Your task to perform on an android device: Open Youtube and go to the subscriptions tab Image 0: 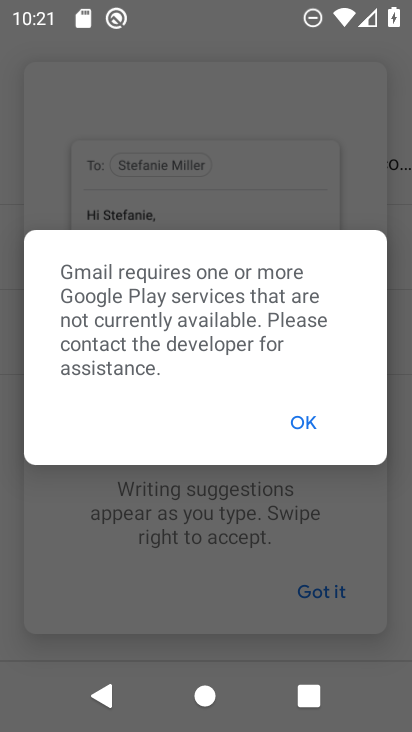
Step 0: press home button
Your task to perform on an android device: Open Youtube and go to the subscriptions tab Image 1: 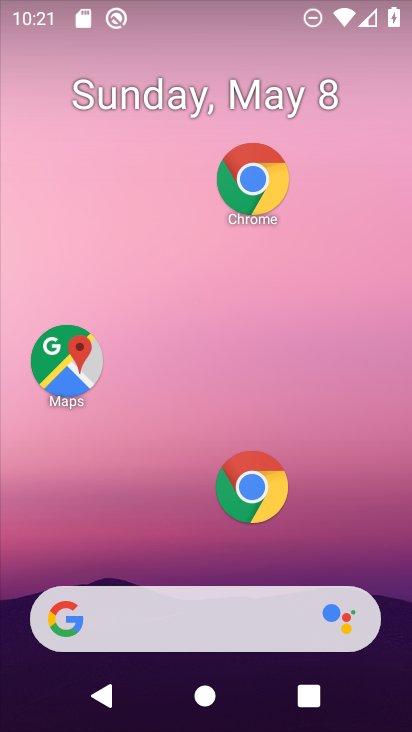
Step 1: drag from (174, 508) to (207, 14)
Your task to perform on an android device: Open Youtube and go to the subscriptions tab Image 2: 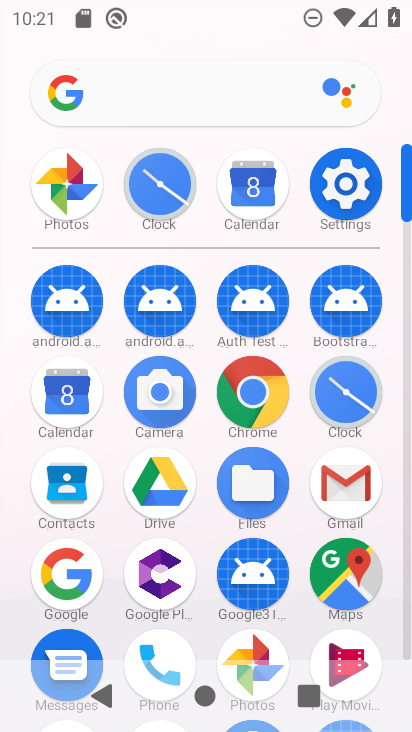
Step 2: drag from (286, 517) to (301, 263)
Your task to perform on an android device: Open Youtube and go to the subscriptions tab Image 3: 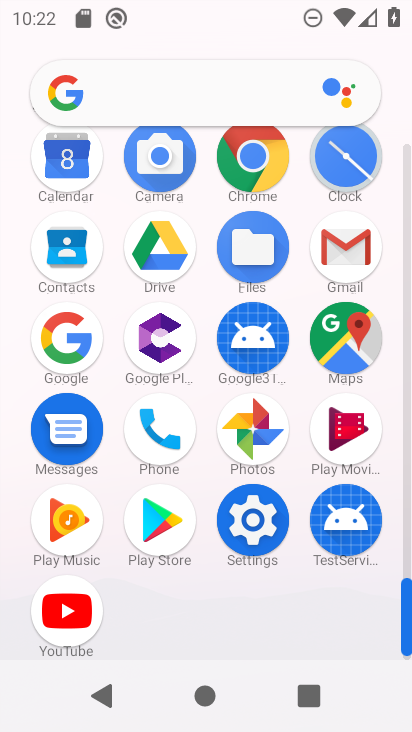
Step 3: click (60, 624)
Your task to perform on an android device: Open Youtube and go to the subscriptions tab Image 4: 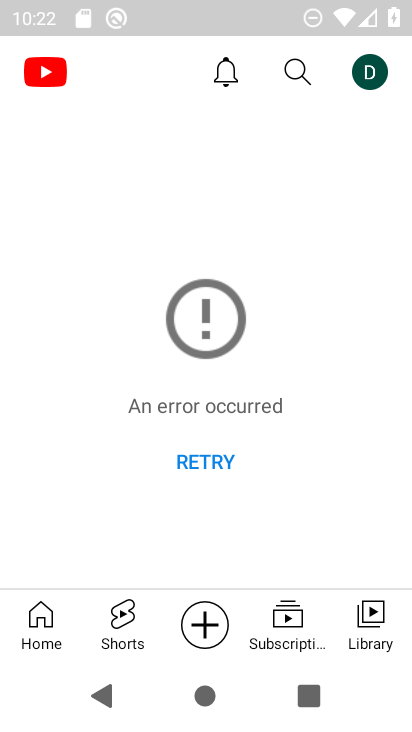
Step 4: click (294, 622)
Your task to perform on an android device: Open Youtube and go to the subscriptions tab Image 5: 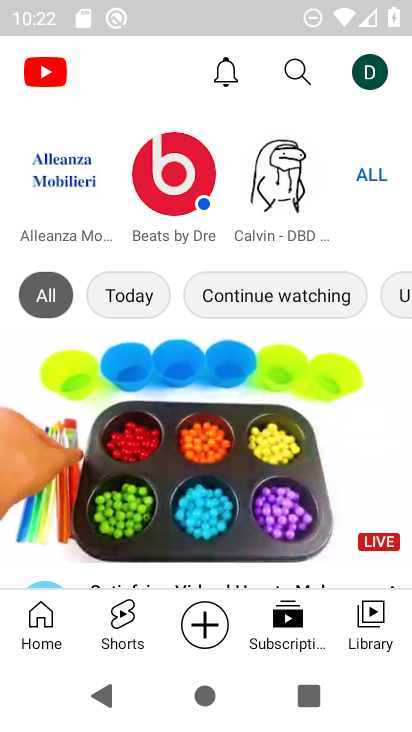
Step 5: task complete